Your task to perform on an android device: Open Youtube and go to "Your channel" Image 0: 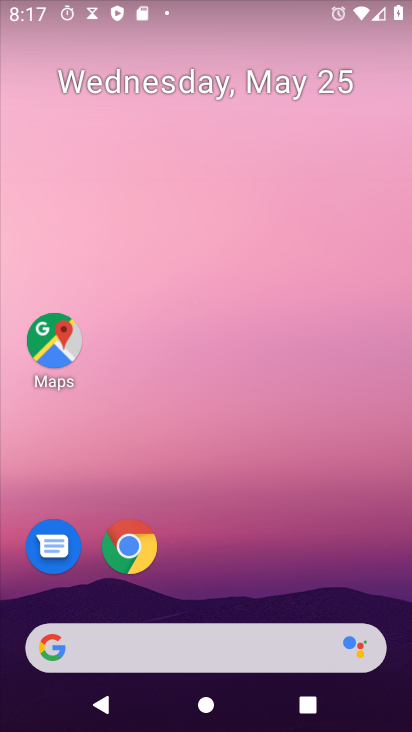
Step 0: drag from (209, 608) to (219, 6)
Your task to perform on an android device: Open Youtube and go to "Your channel" Image 1: 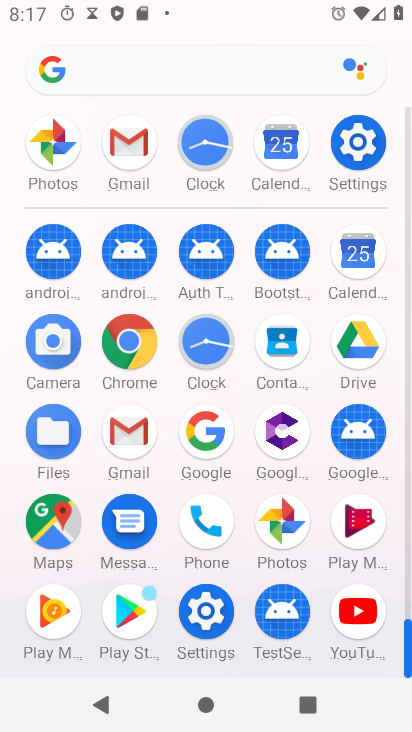
Step 1: click (357, 621)
Your task to perform on an android device: Open Youtube and go to "Your channel" Image 2: 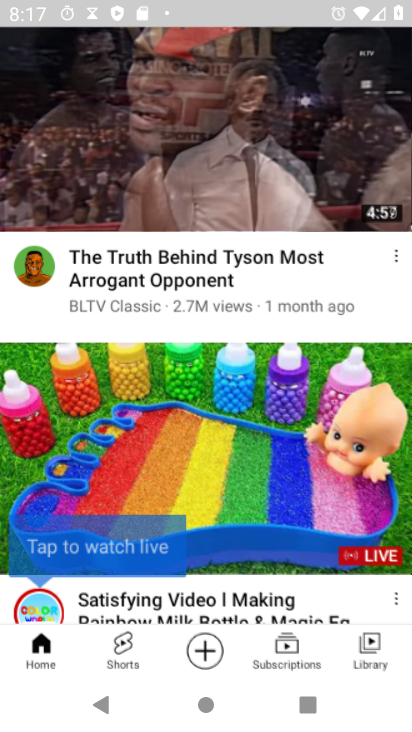
Step 2: drag from (298, 214) to (349, 717)
Your task to perform on an android device: Open Youtube and go to "Your channel" Image 3: 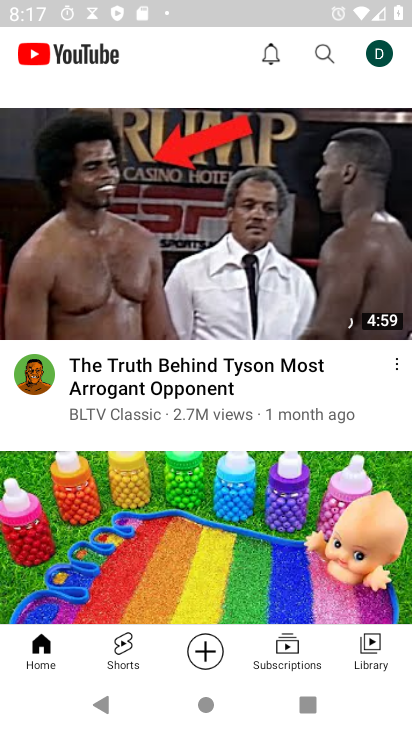
Step 3: click (369, 661)
Your task to perform on an android device: Open Youtube and go to "Your channel" Image 4: 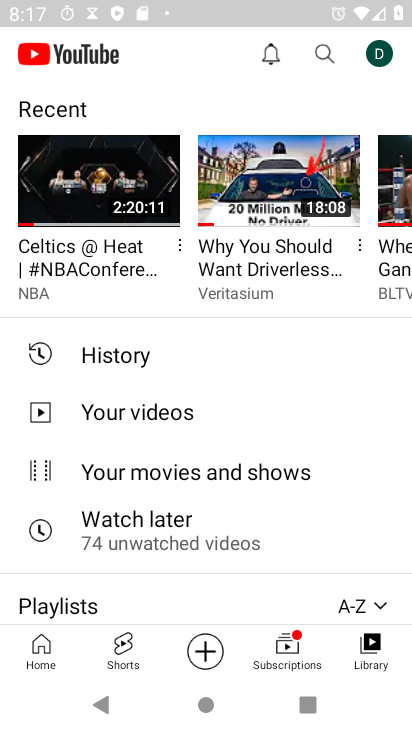
Step 4: click (381, 58)
Your task to perform on an android device: Open Youtube and go to "Your channel" Image 5: 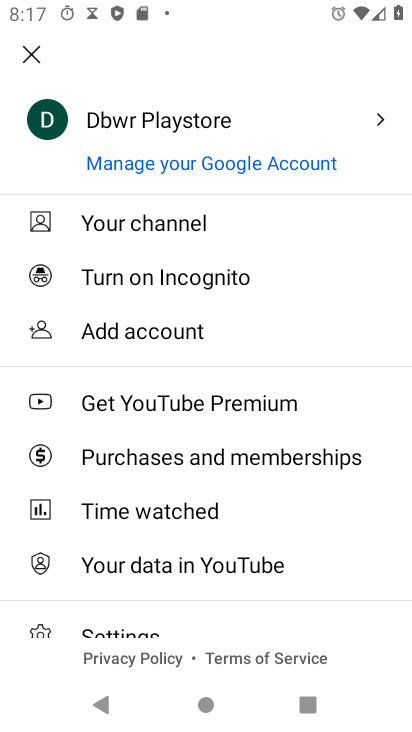
Step 5: click (165, 212)
Your task to perform on an android device: Open Youtube and go to "Your channel" Image 6: 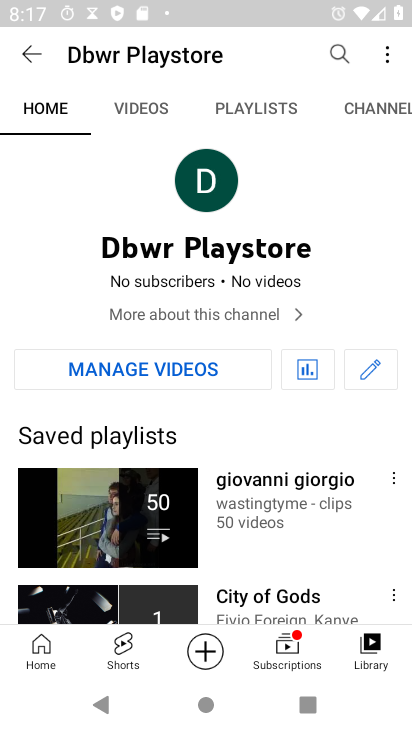
Step 6: task complete